Your task to perform on an android device: Open network settings Image 0: 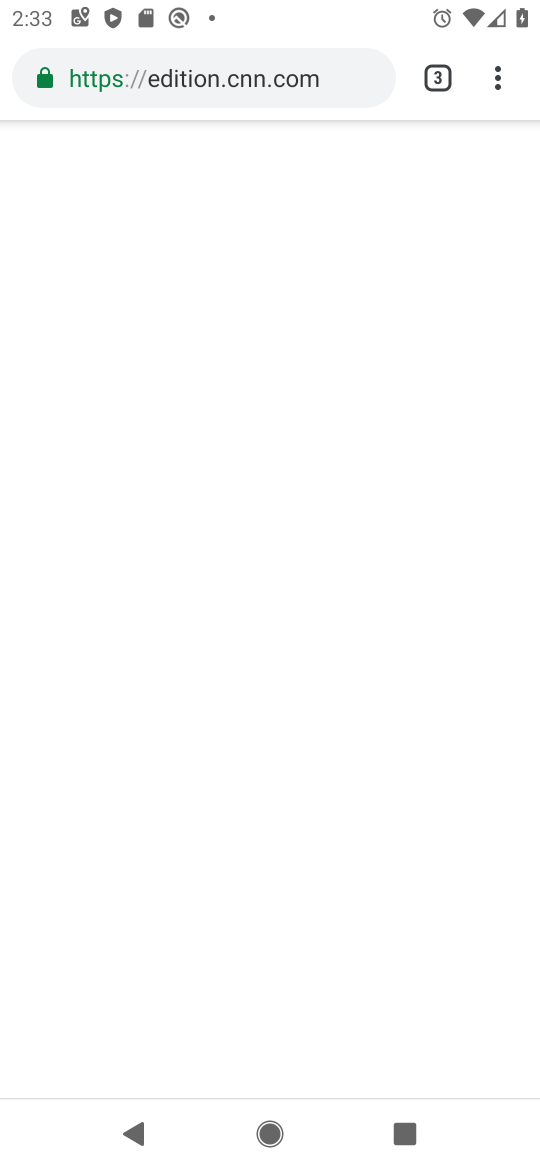
Step 0: press home button
Your task to perform on an android device: Open network settings Image 1: 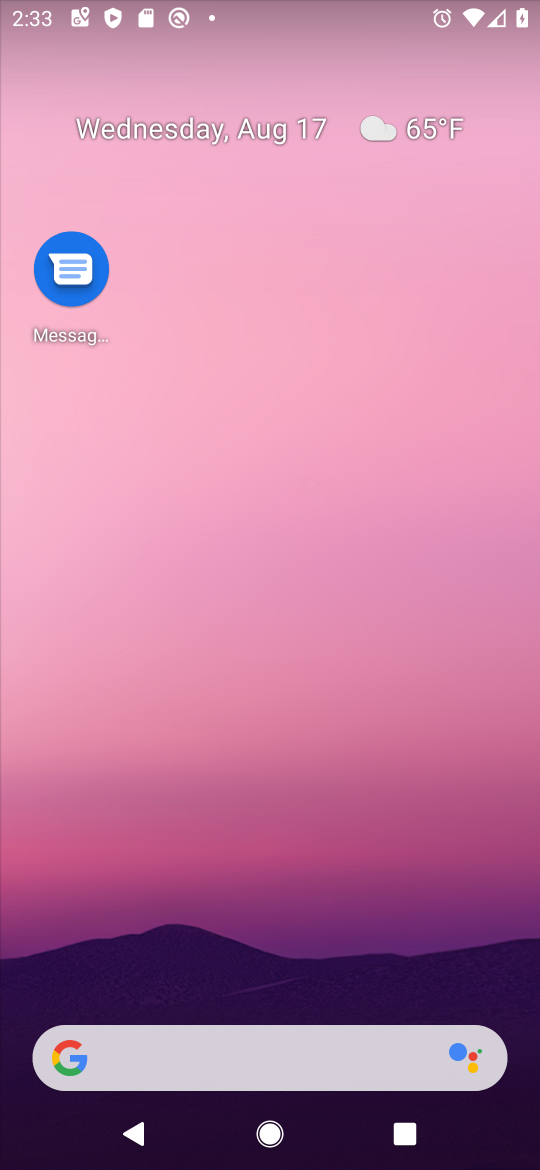
Step 1: drag from (275, 994) to (183, 113)
Your task to perform on an android device: Open network settings Image 2: 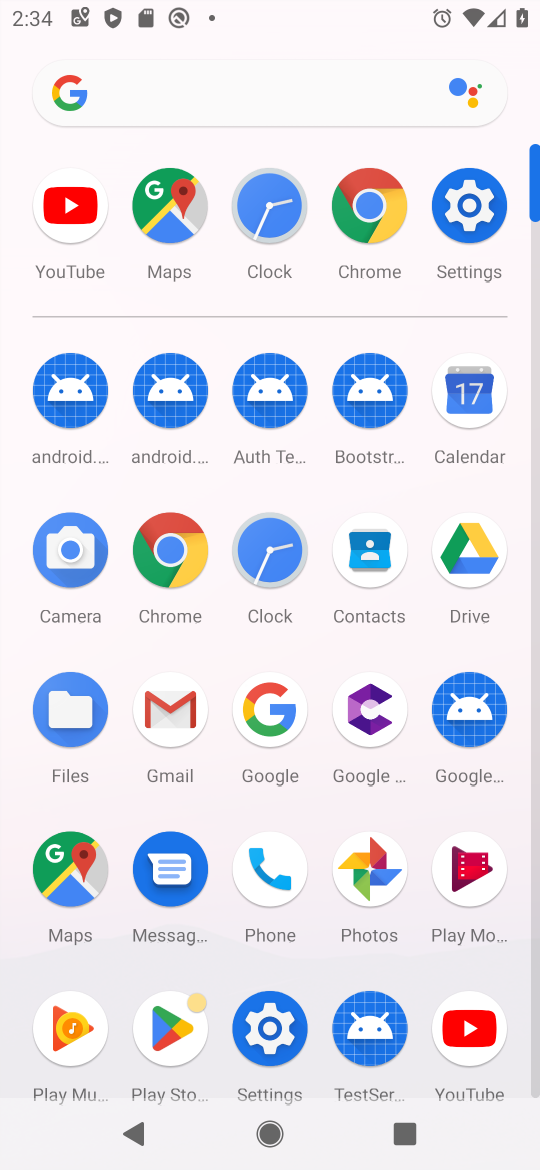
Step 2: click (279, 1032)
Your task to perform on an android device: Open network settings Image 3: 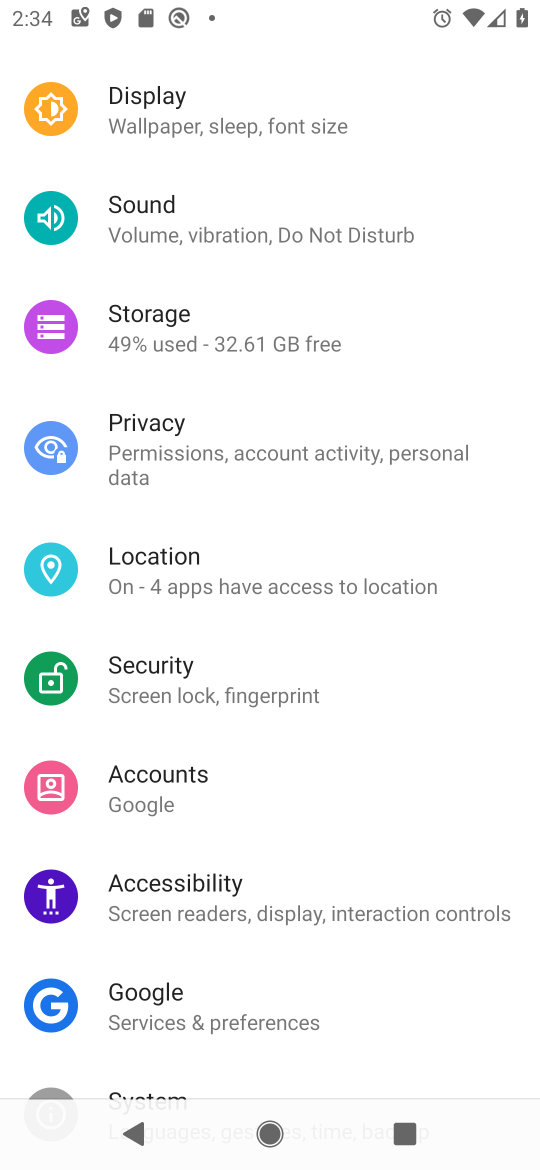
Step 3: drag from (180, 217) to (97, 910)
Your task to perform on an android device: Open network settings Image 4: 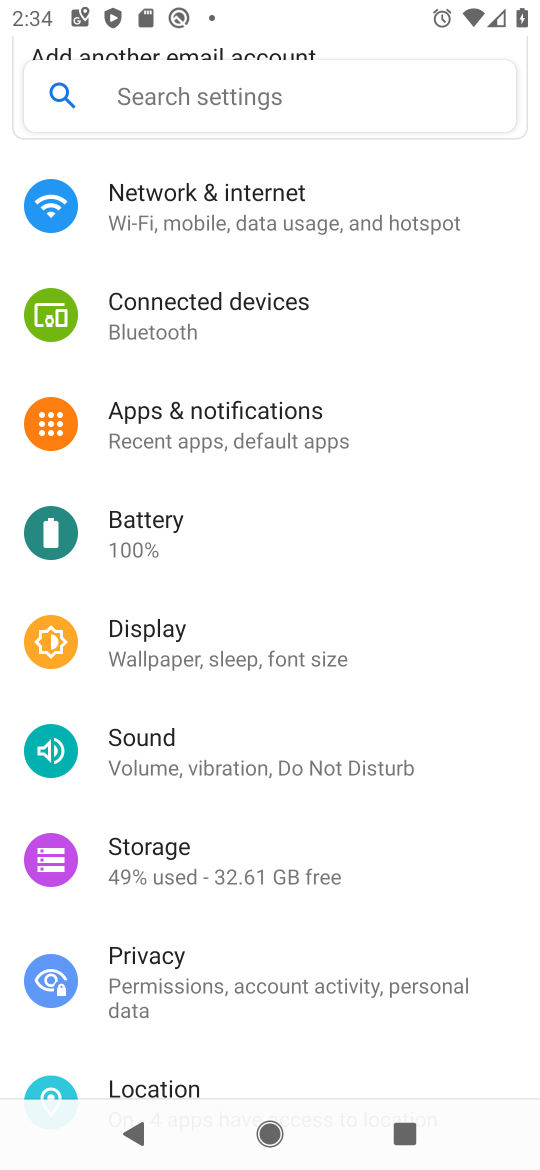
Step 4: click (204, 228)
Your task to perform on an android device: Open network settings Image 5: 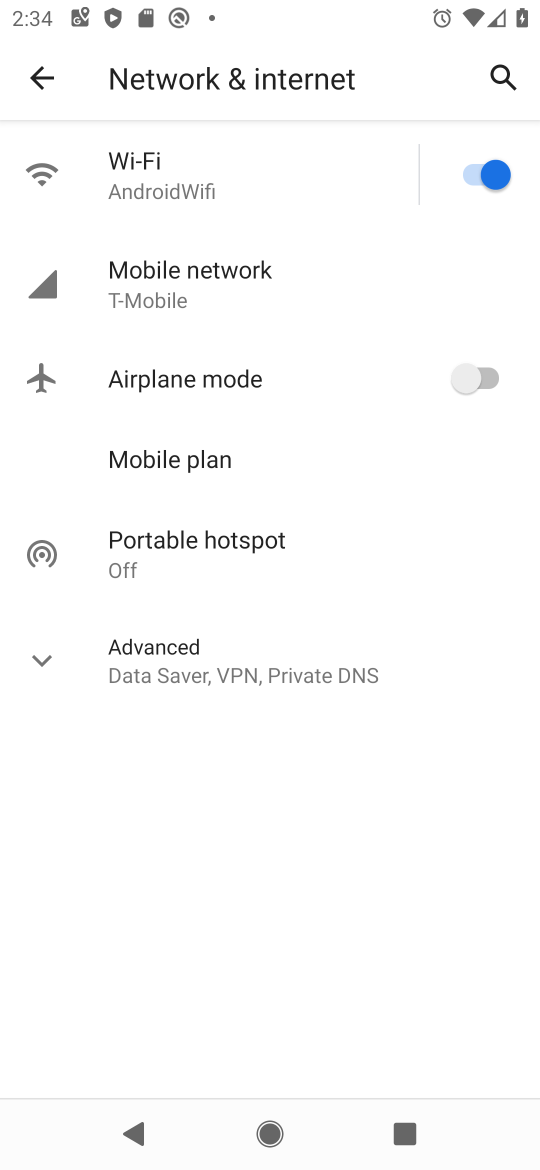
Step 5: click (178, 289)
Your task to perform on an android device: Open network settings Image 6: 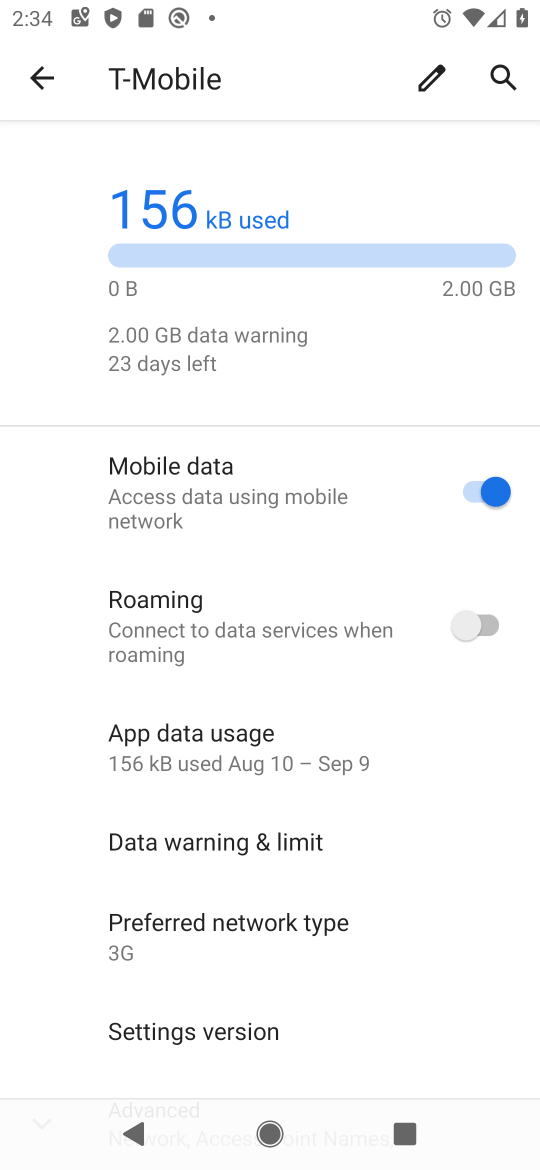
Step 6: task complete